Your task to perform on an android device: What's the weather going to be tomorrow? Image 0: 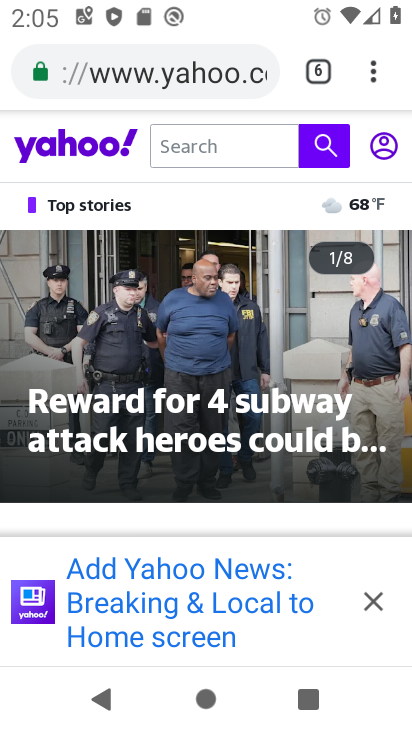
Step 0: click (377, 72)
Your task to perform on an android device: What's the weather going to be tomorrow? Image 1: 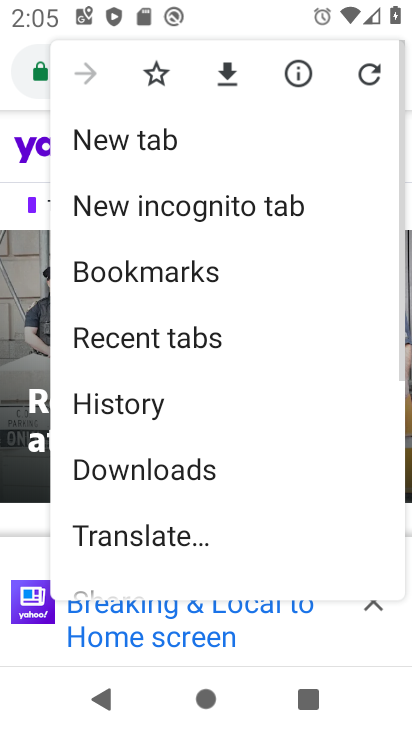
Step 1: click (166, 139)
Your task to perform on an android device: What's the weather going to be tomorrow? Image 2: 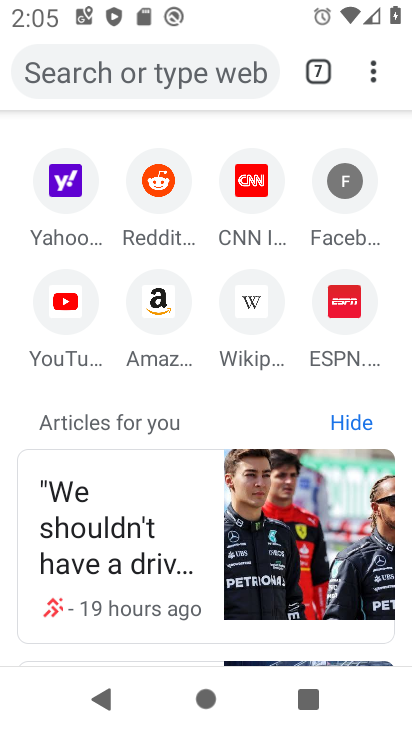
Step 2: click (128, 66)
Your task to perform on an android device: What's the weather going to be tomorrow? Image 3: 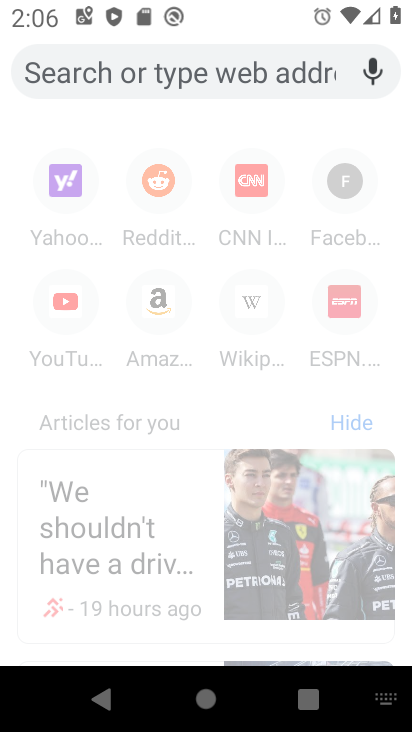
Step 3: type "What's the weather going to be tomorrow?"
Your task to perform on an android device: What's the weather going to be tomorrow? Image 4: 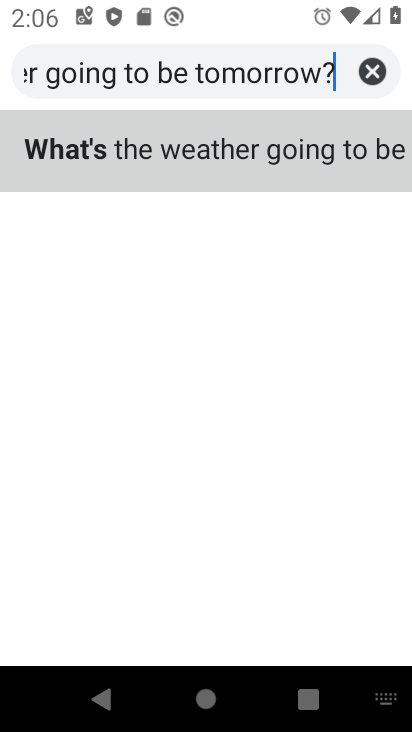
Step 4: click (281, 141)
Your task to perform on an android device: What's the weather going to be tomorrow? Image 5: 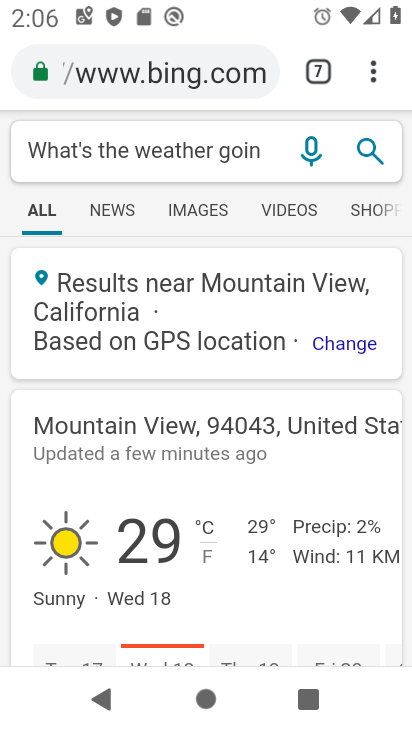
Step 5: task complete